Your task to perform on an android device: change text size in settings app Image 0: 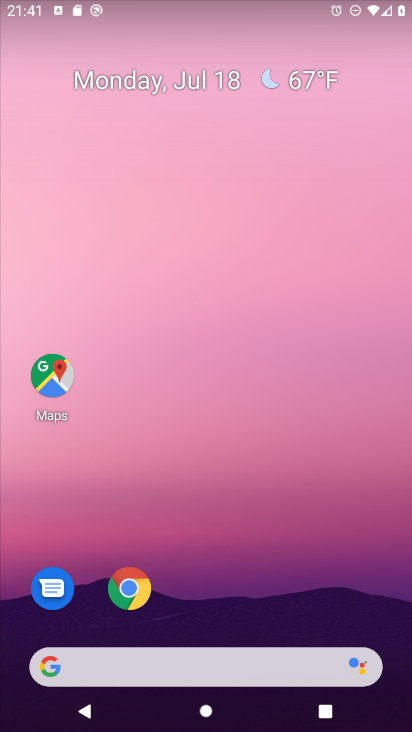
Step 0: drag from (363, 604) to (329, 140)
Your task to perform on an android device: change text size in settings app Image 1: 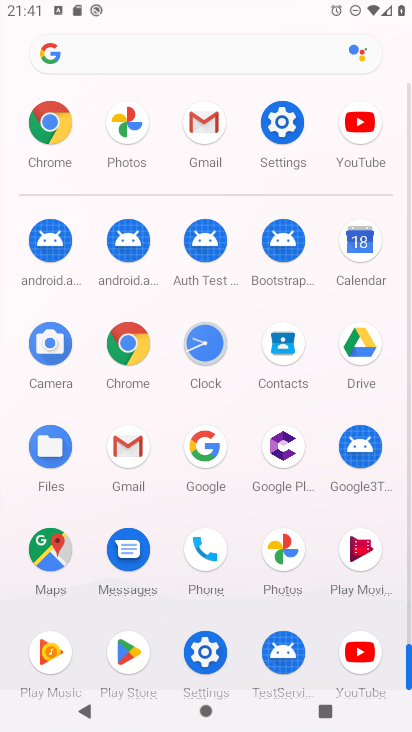
Step 1: click (207, 651)
Your task to perform on an android device: change text size in settings app Image 2: 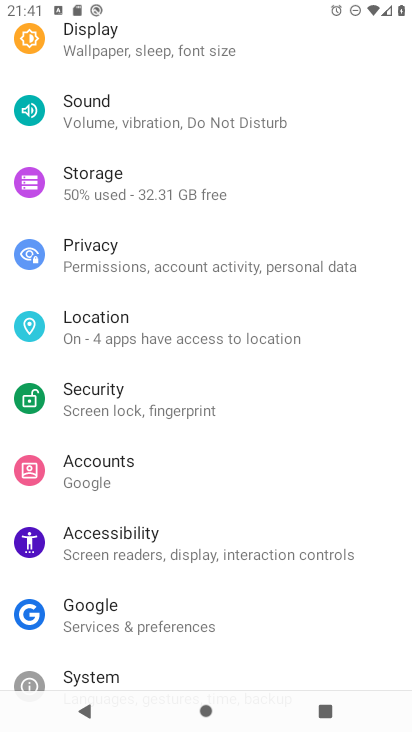
Step 2: drag from (163, 81) to (220, 465)
Your task to perform on an android device: change text size in settings app Image 3: 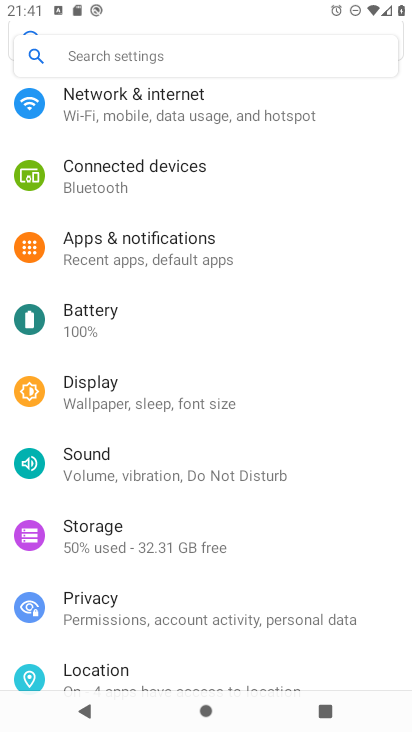
Step 3: click (119, 404)
Your task to perform on an android device: change text size in settings app Image 4: 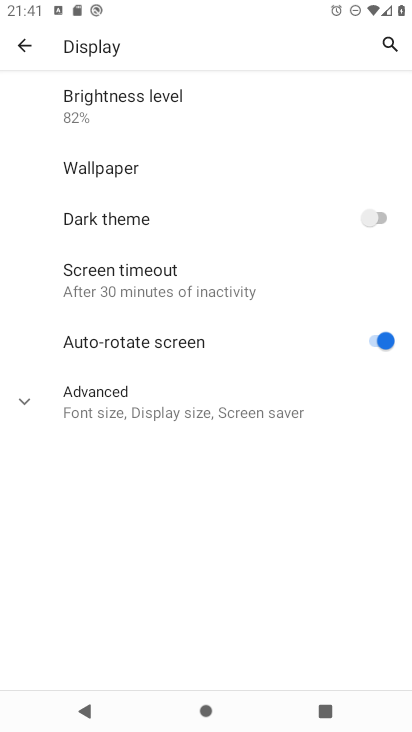
Step 4: click (32, 400)
Your task to perform on an android device: change text size in settings app Image 5: 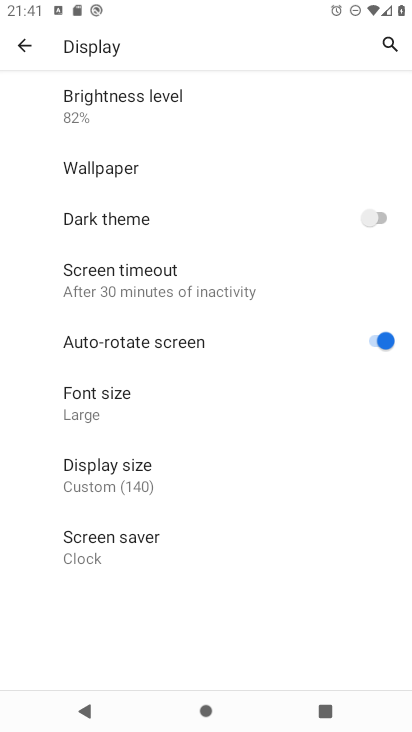
Step 5: click (75, 401)
Your task to perform on an android device: change text size in settings app Image 6: 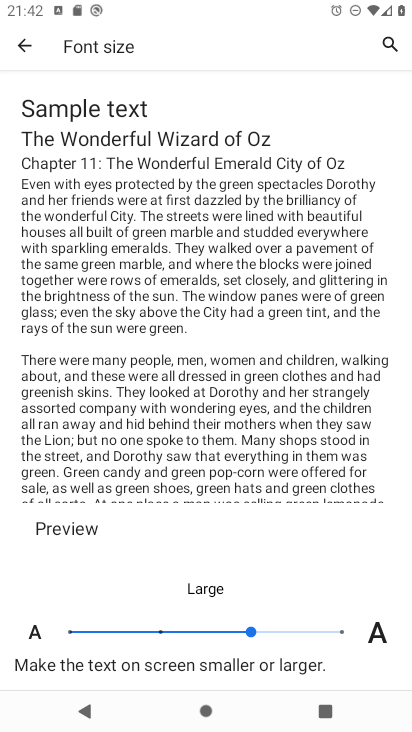
Step 6: click (340, 633)
Your task to perform on an android device: change text size in settings app Image 7: 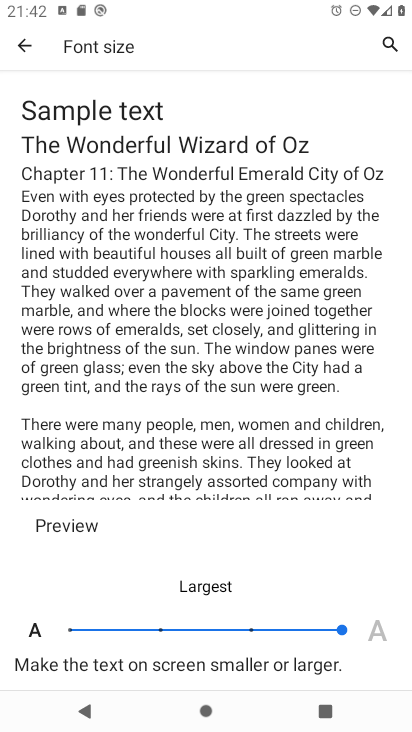
Step 7: task complete